Your task to perform on an android device: What's the weather? Image 0: 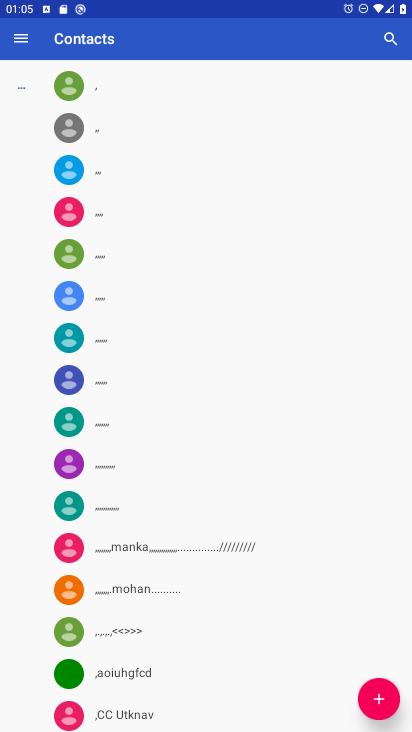
Step 0: press home button
Your task to perform on an android device: What's the weather? Image 1: 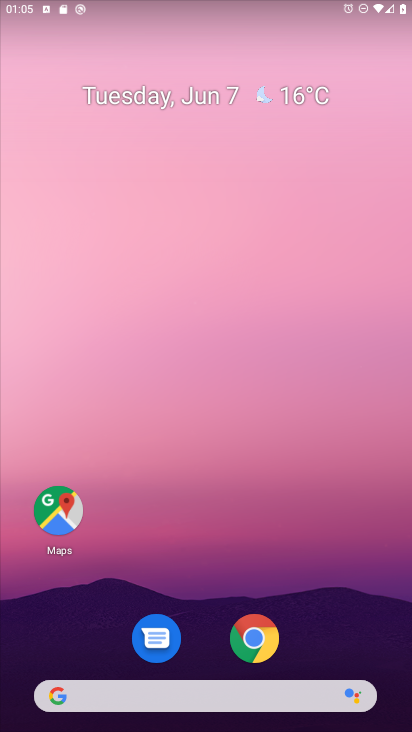
Step 1: click (188, 696)
Your task to perform on an android device: What's the weather? Image 2: 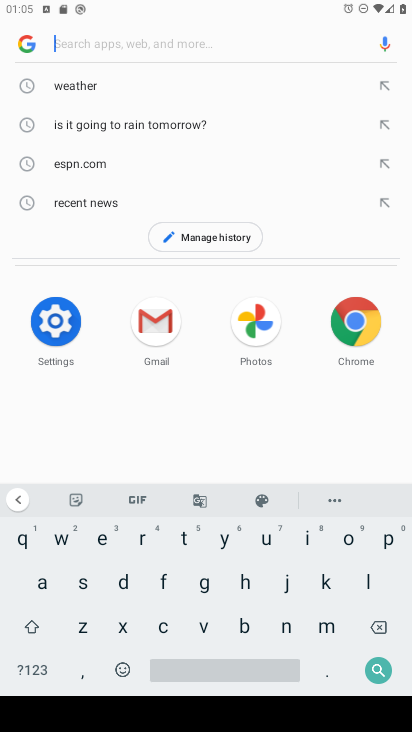
Step 2: click (124, 84)
Your task to perform on an android device: What's the weather? Image 3: 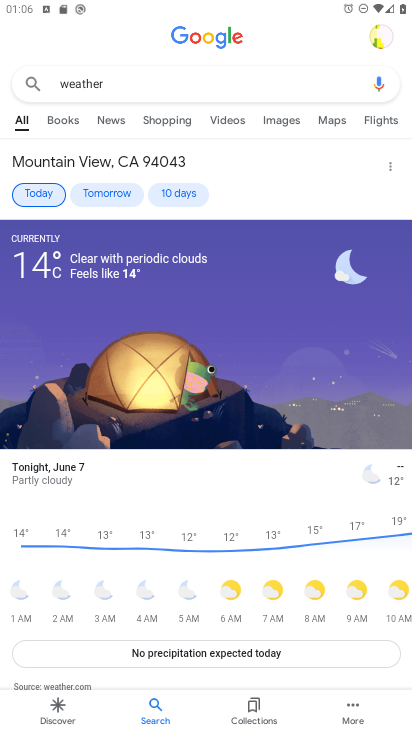
Step 3: task complete